Your task to perform on an android device: Show me popular videos on Youtube Image 0: 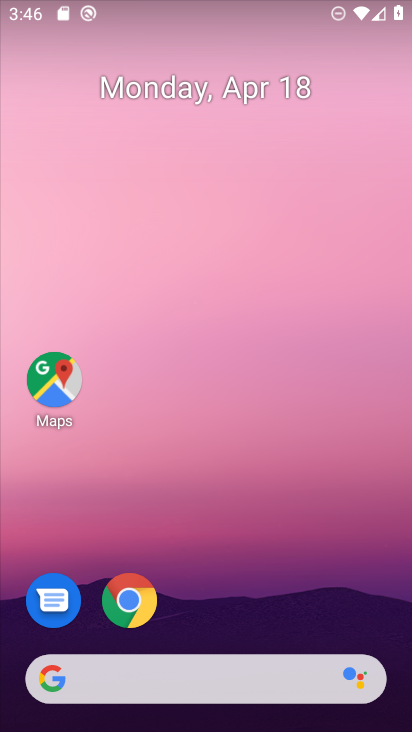
Step 0: drag from (190, 683) to (227, 250)
Your task to perform on an android device: Show me popular videos on Youtube Image 1: 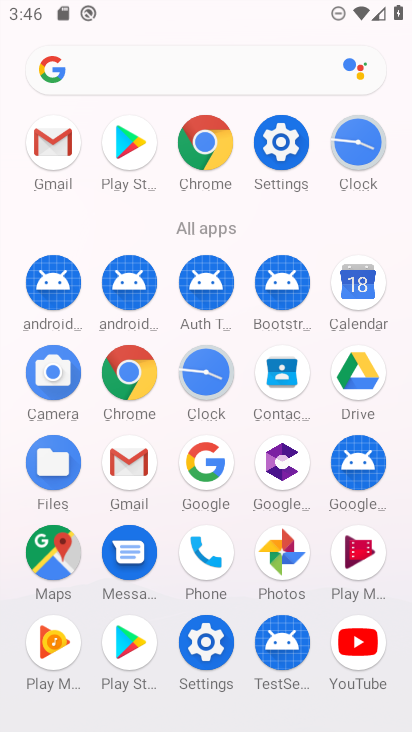
Step 1: click (362, 653)
Your task to perform on an android device: Show me popular videos on Youtube Image 2: 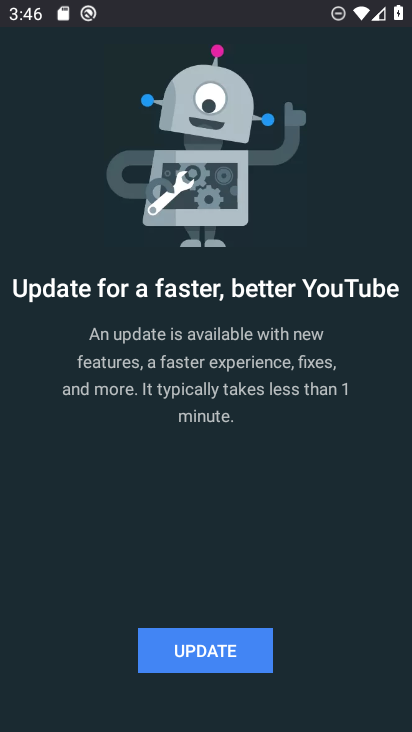
Step 2: click (209, 653)
Your task to perform on an android device: Show me popular videos on Youtube Image 3: 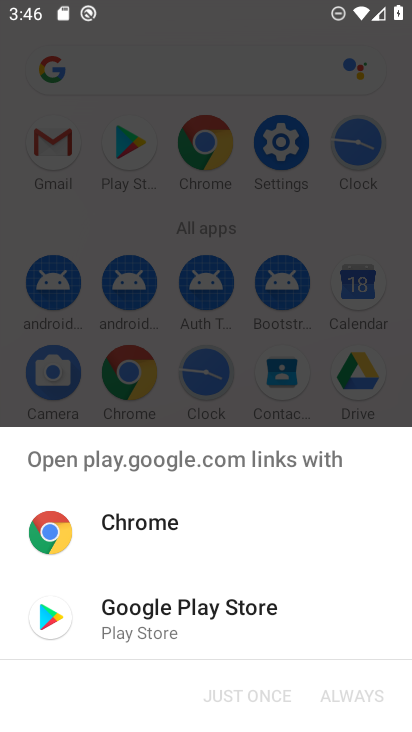
Step 3: click (159, 635)
Your task to perform on an android device: Show me popular videos on Youtube Image 4: 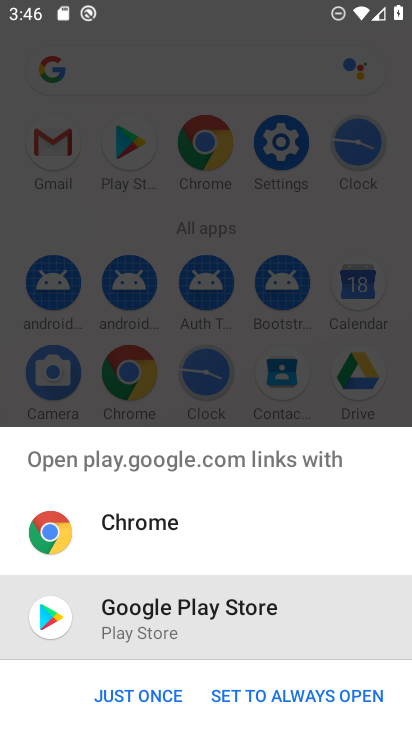
Step 4: click (316, 701)
Your task to perform on an android device: Show me popular videos on Youtube Image 5: 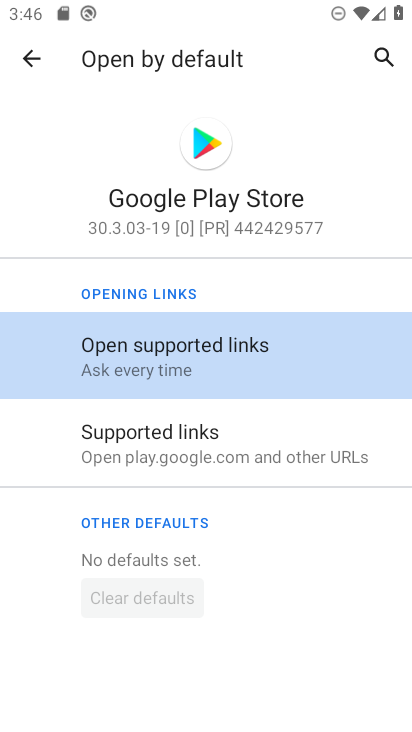
Step 5: click (29, 61)
Your task to perform on an android device: Show me popular videos on Youtube Image 6: 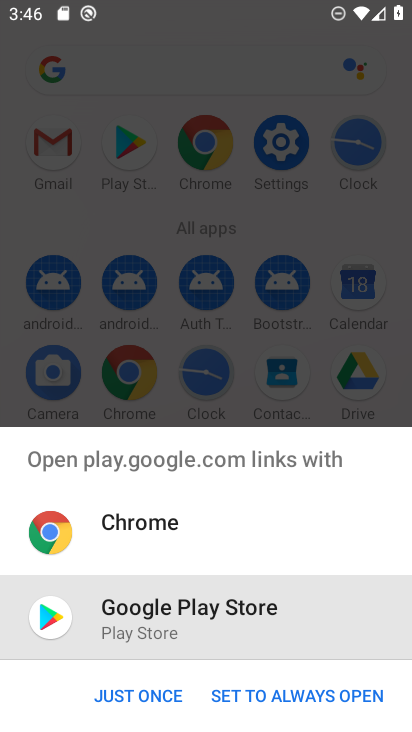
Step 6: click (146, 692)
Your task to perform on an android device: Show me popular videos on Youtube Image 7: 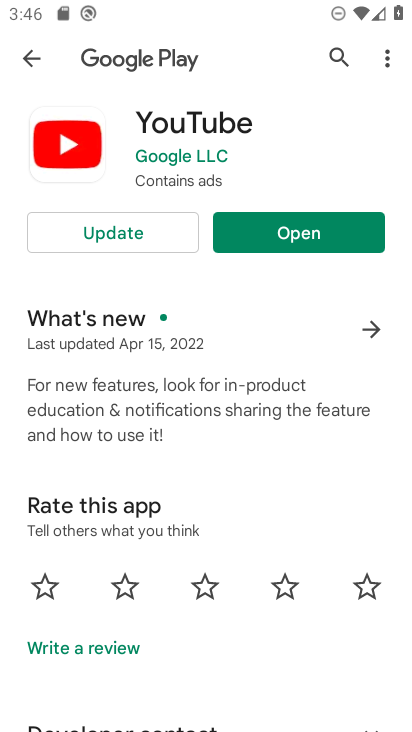
Step 7: click (129, 229)
Your task to perform on an android device: Show me popular videos on Youtube Image 8: 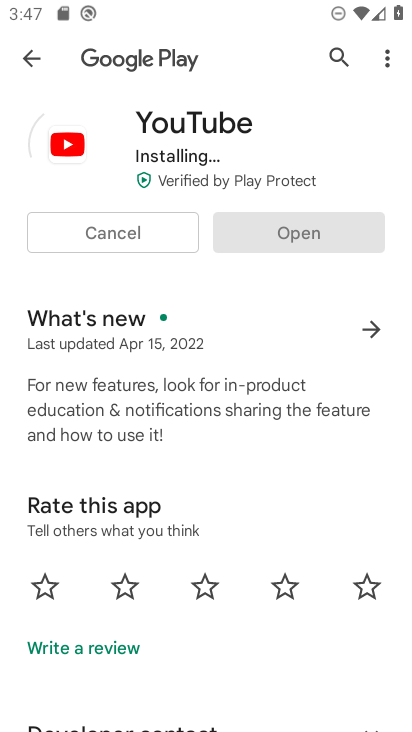
Step 8: drag from (156, 450) to (171, 500)
Your task to perform on an android device: Show me popular videos on Youtube Image 9: 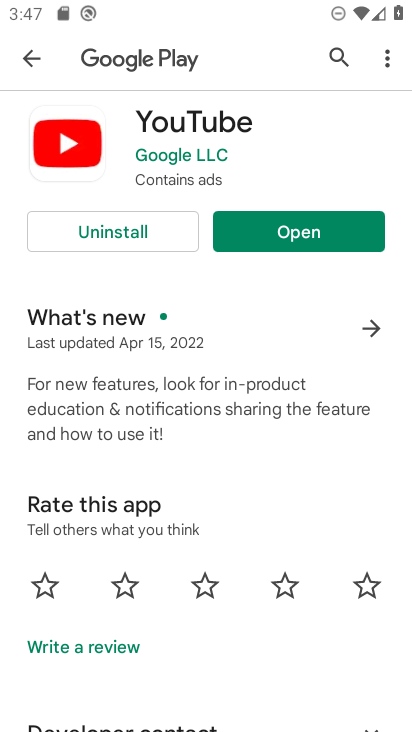
Step 9: click (284, 240)
Your task to perform on an android device: Show me popular videos on Youtube Image 10: 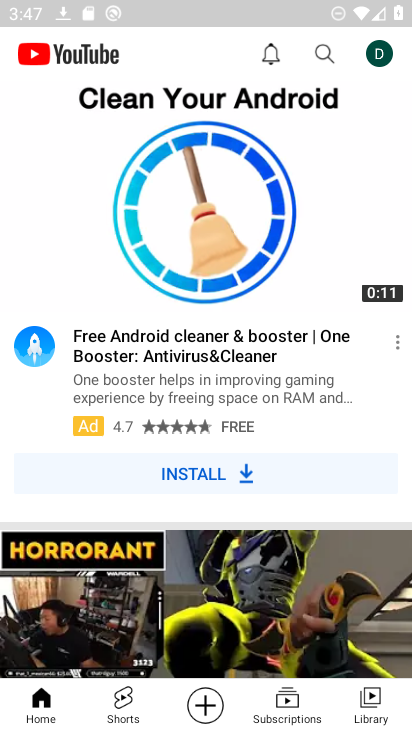
Step 10: click (320, 43)
Your task to perform on an android device: Show me popular videos on Youtube Image 11: 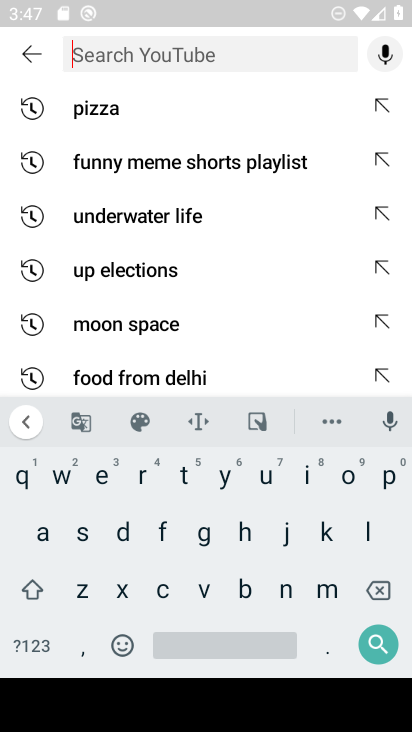
Step 11: click (392, 477)
Your task to perform on an android device: Show me popular videos on Youtube Image 12: 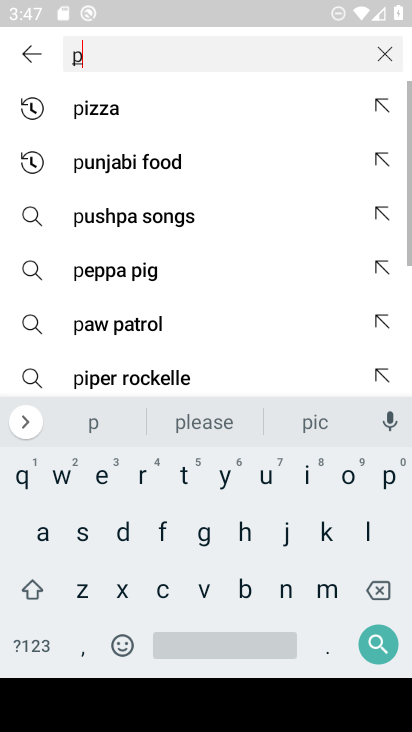
Step 12: click (353, 474)
Your task to perform on an android device: Show me popular videos on Youtube Image 13: 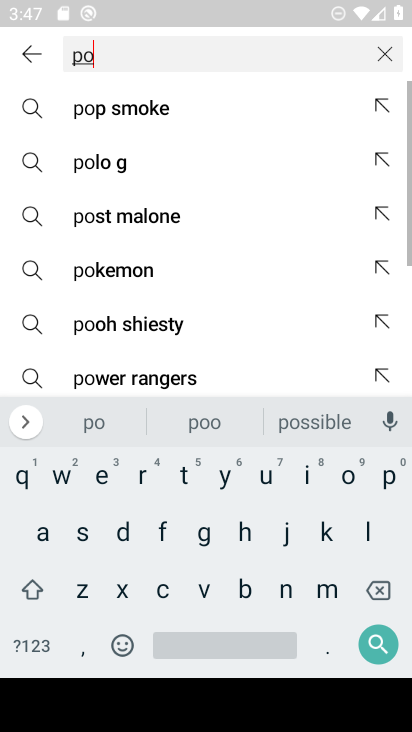
Step 13: click (393, 478)
Your task to perform on an android device: Show me popular videos on Youtube Image 14: 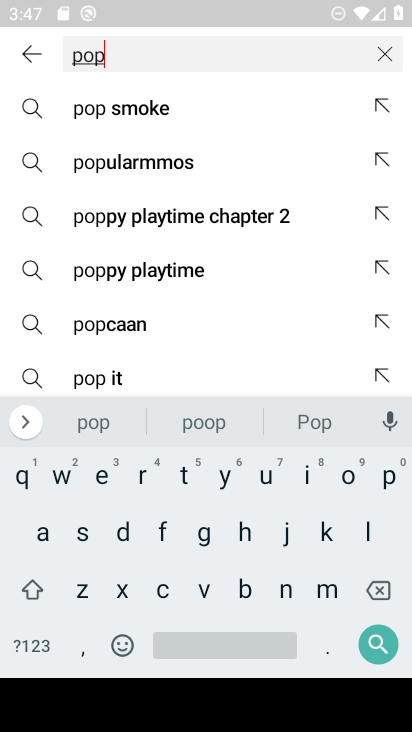
Step 14: click (265, 472)
Your task to perform on an android device: Show me popular videos on Youtube Image 15: 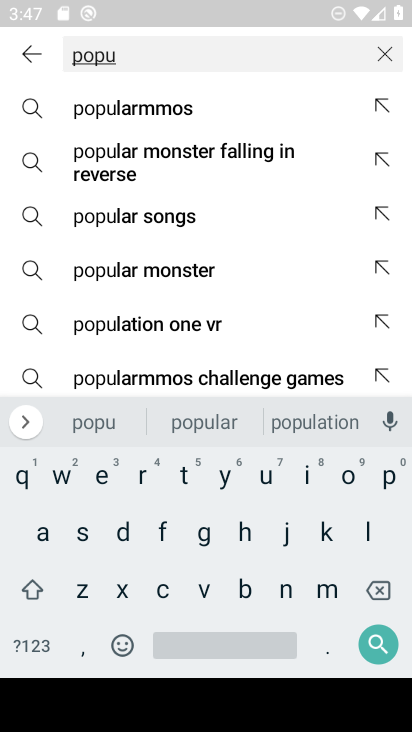
Step 15: click (207, 419)
Your task to perform on an android device: Show me popular videos on Youtube Image 16: 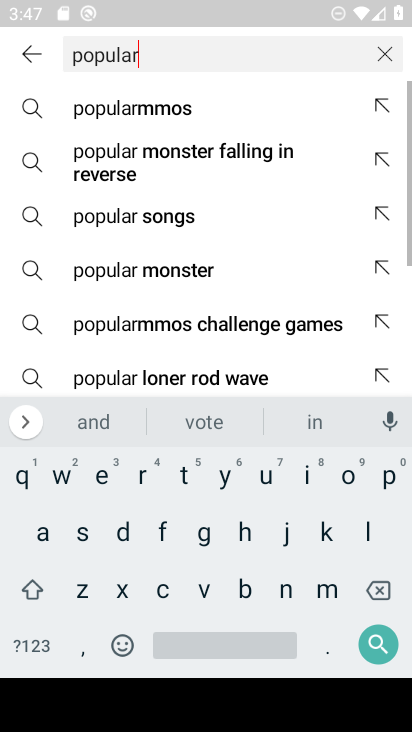
Step 16: click (203, 588)
Your task to perform on an android device: Show me popular videos on Youtube Image 17: 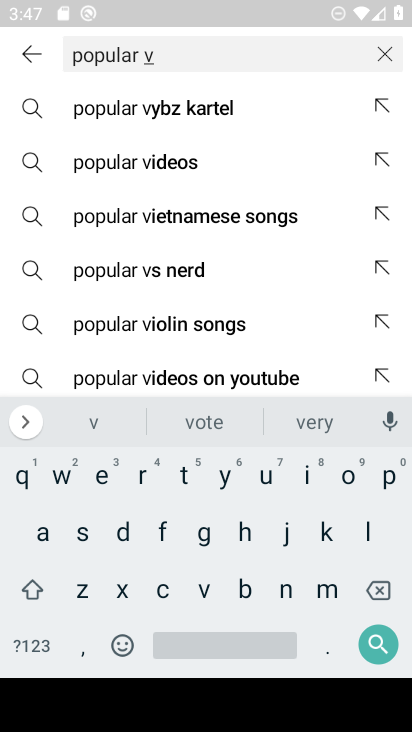
Step 17: click (182, 160)
Your task to perform on an android device: Show me popular videos on Youtube Image 18: 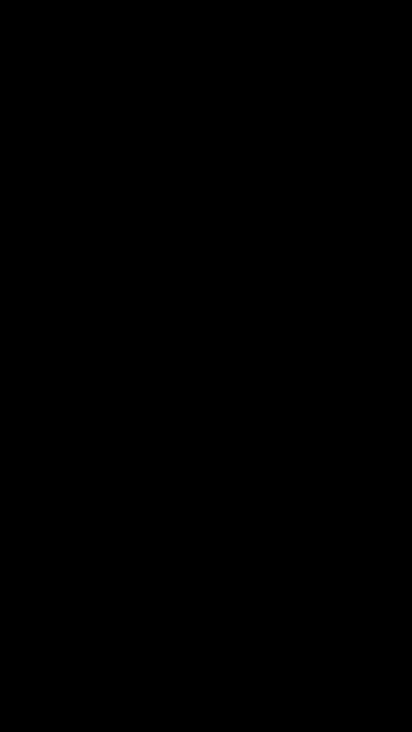
Step 18: task complete